Your task to perform on an android device: add a label to a message in the gmail app Image 0: 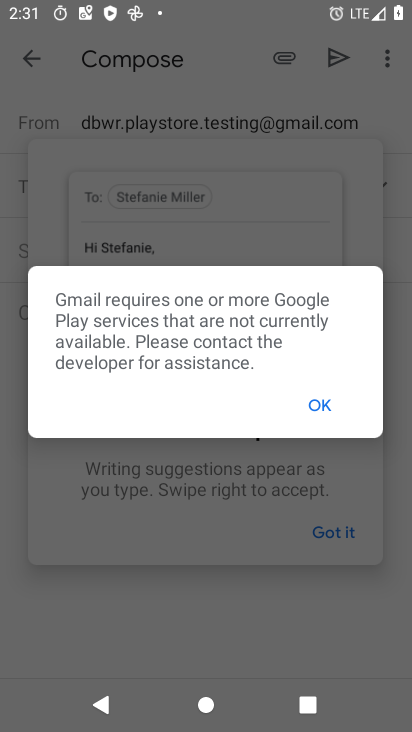
Step 0: press home button
Your task to perform on an android device: add a label to a message in the gmail app Image 1: 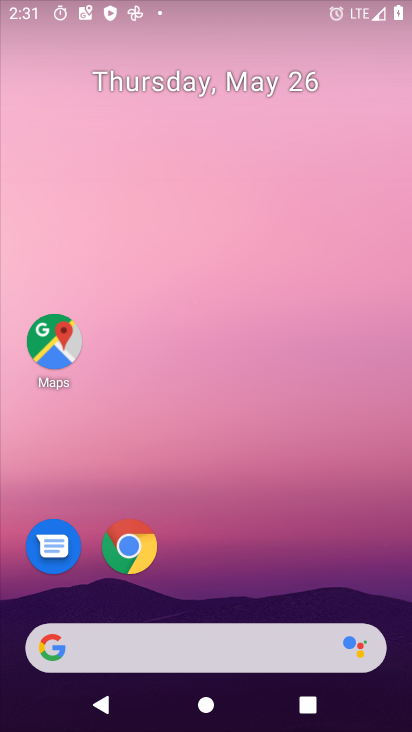
Step 1: drag from (245, 567) to (308, 73)
Your task to perform on an android device: add a label to a message in the gmail app Image 2: 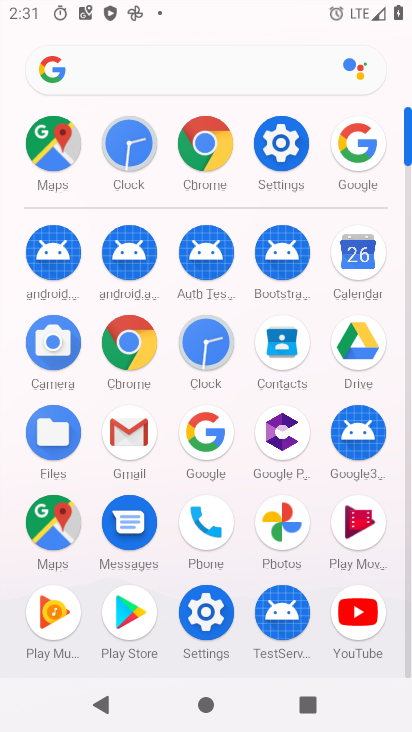
Step 2: click (137, 429)
Your task to perform on an android device: add a label to a message in the gmail app Image 3: 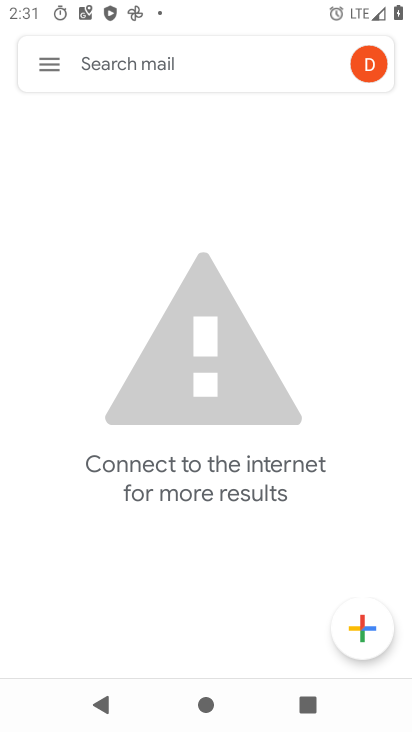
Step 3: task complete